Your task to perform on an android device: Go to eBay Image 0: 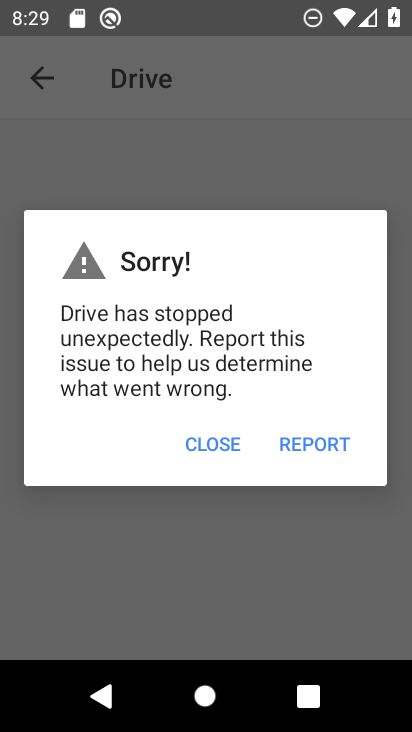
Step 0: press home button
Your task to perform on an android device: Go to eBay Image 1: 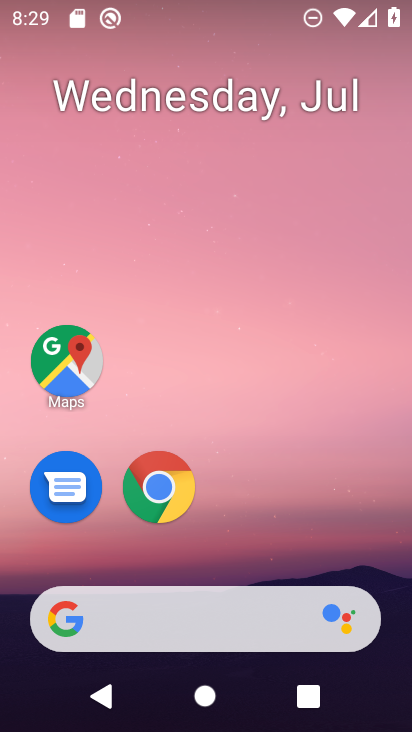
Step 1: drag from (362, 532) to (328, 173)
Your task to perform on an android device: Go to eBay Image 2: 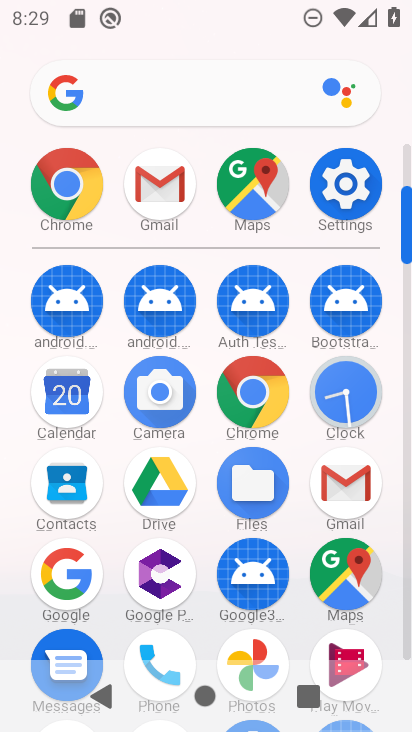
Step 2: click (260, 396)
Your task to perform on an android device: Go to eBay Image 3: 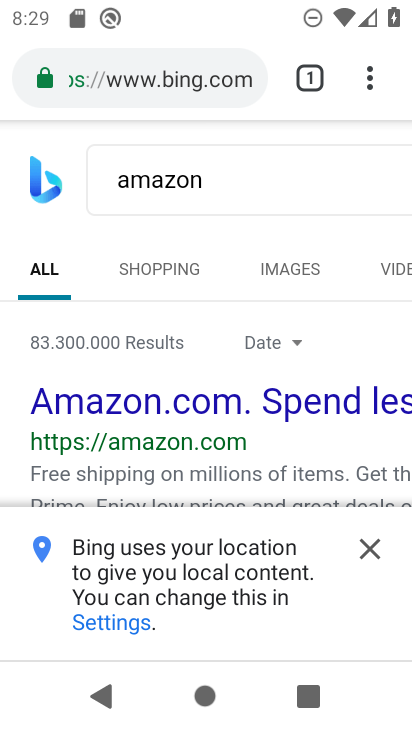
Step 3: click (201, 86)
Your task to perform on an android device: Go to eBay Image 4: 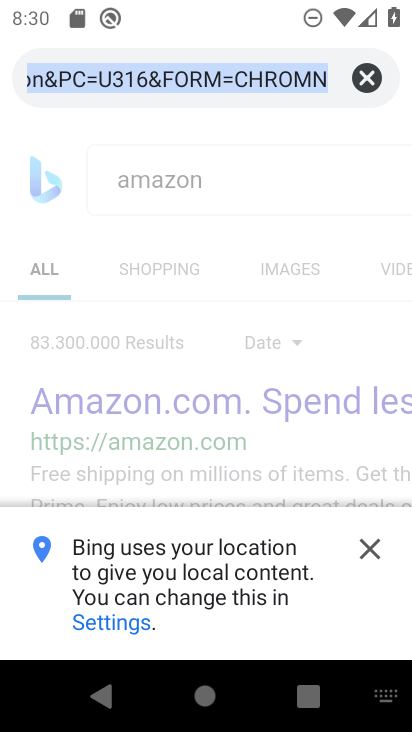
Step 4: type "ebay"
Your task to perform on an android device: Go to eBay Image 5: 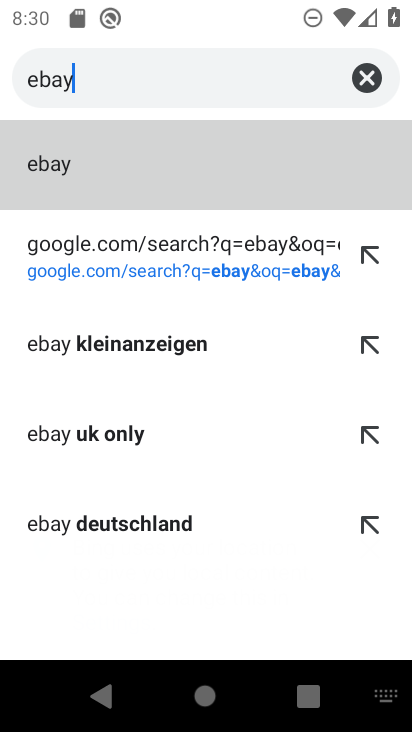
Step 5: click (384, 171)
Your task to perform on an android device: Go to eBay Image 6: 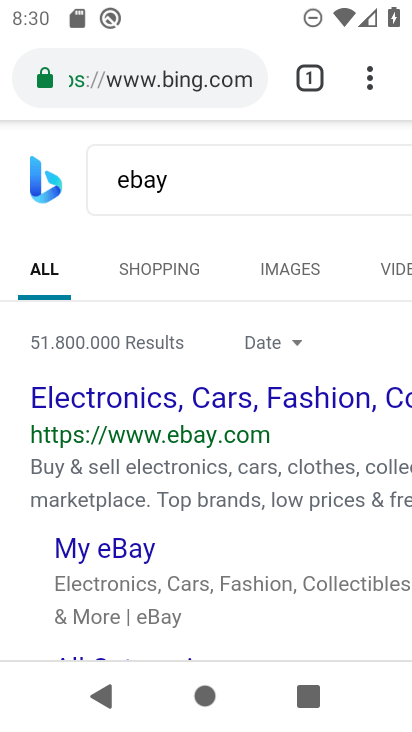
Step 6: task complete